Your task to perform on an android device: Open calendar and show me the fourth week of next month Image 0: 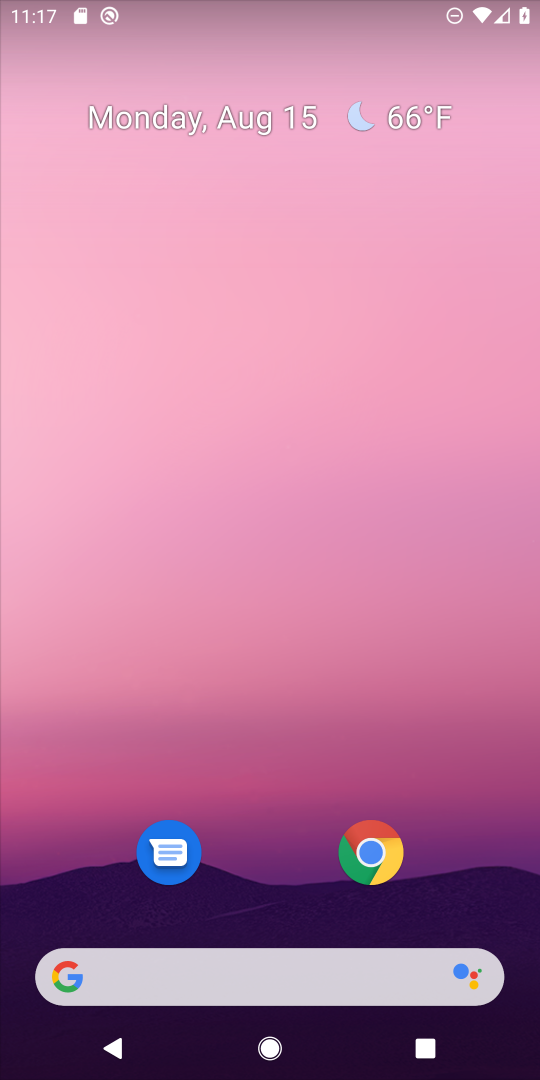
Step 0: drag from (270, 943) to (354, 131)
Your task to perform on an android device: Open calendar and show me the fourth week of next month Image 1: 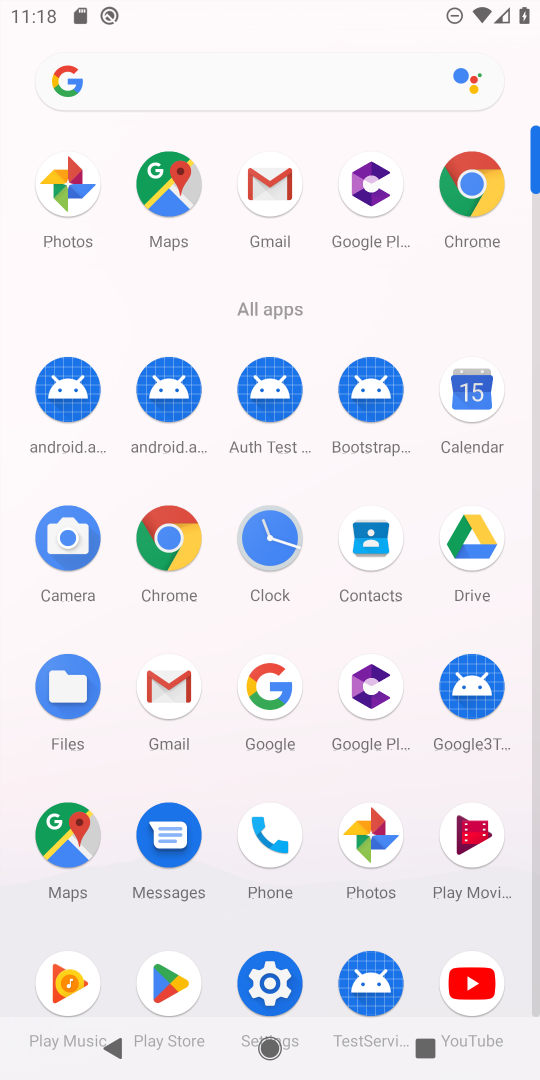
Step 1: click (454, 400)
Your task to perform on an android device: Open calendar and show me the fourth week of next month Image 2: 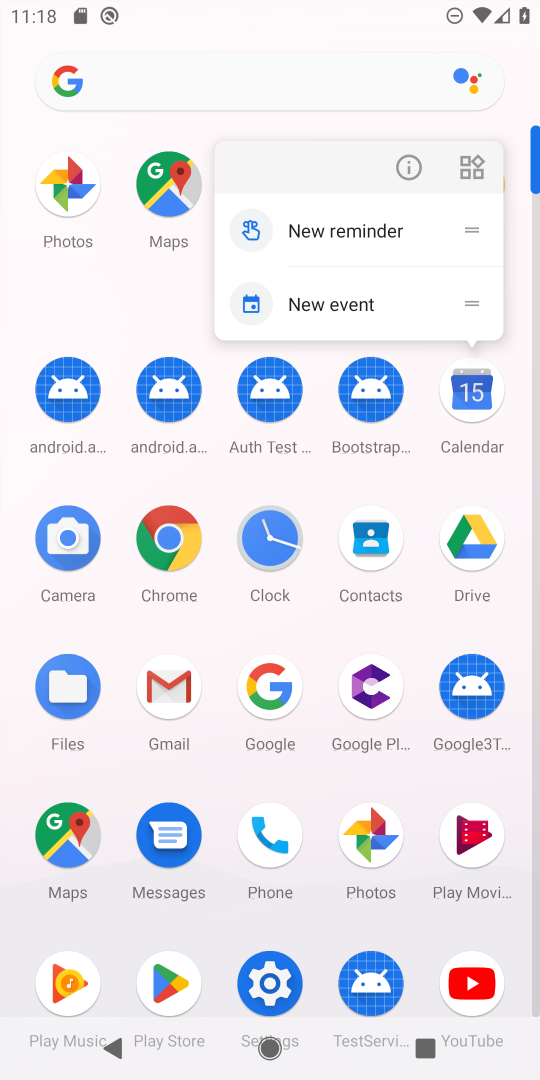
Step 2: click (458, 394)
Your task to perform on an android device: Open calendar and show me the fourth week of next month Image 3: 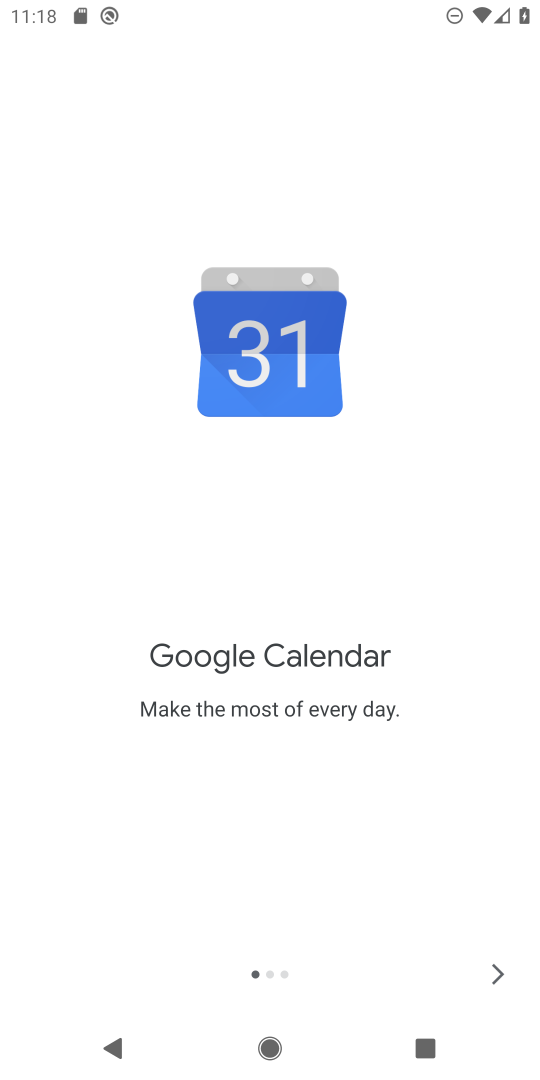
Step 3: click (500, 966)
Your task to perform on an android device: Open calendar and show me the fourth week of next month Image 4: 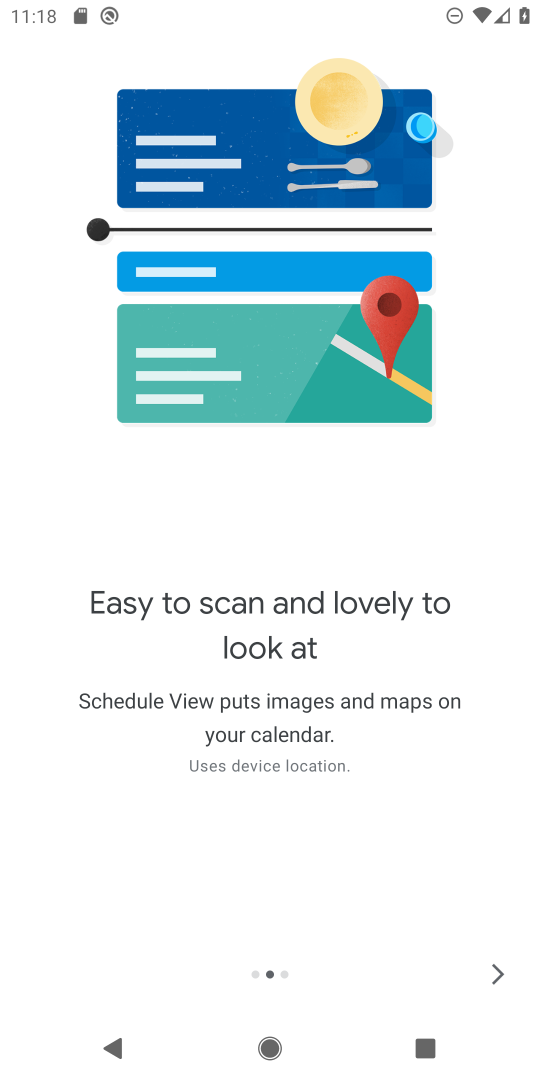
Step 4: click (500, 977)
Your task to perform on an android device: Open calendar and show me the fourth week of next month Image 5: 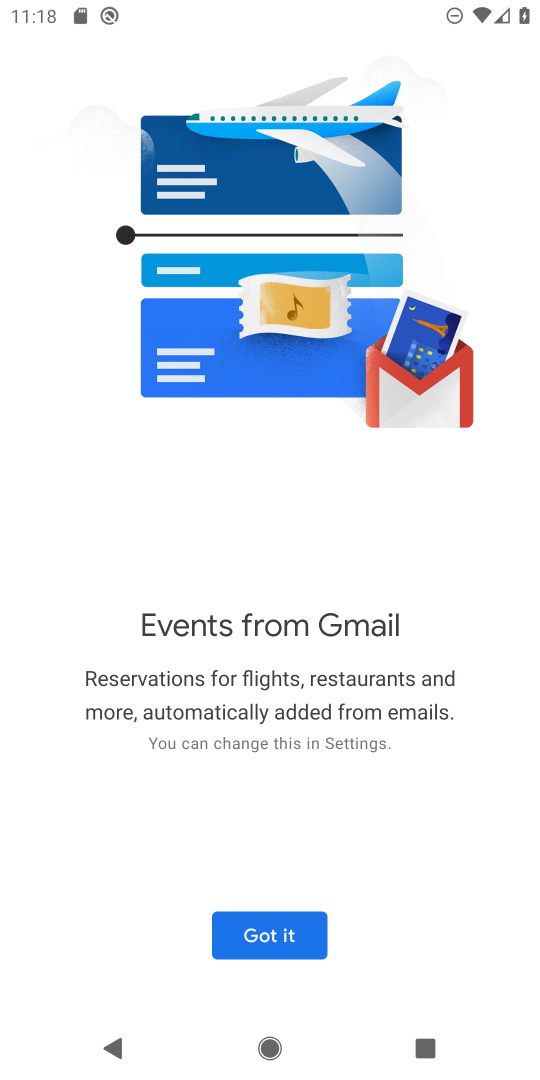
Step 5: click (277, 931)
Your task to perform on an android device: Open calendar and show me the fourth week of next month Image 6: 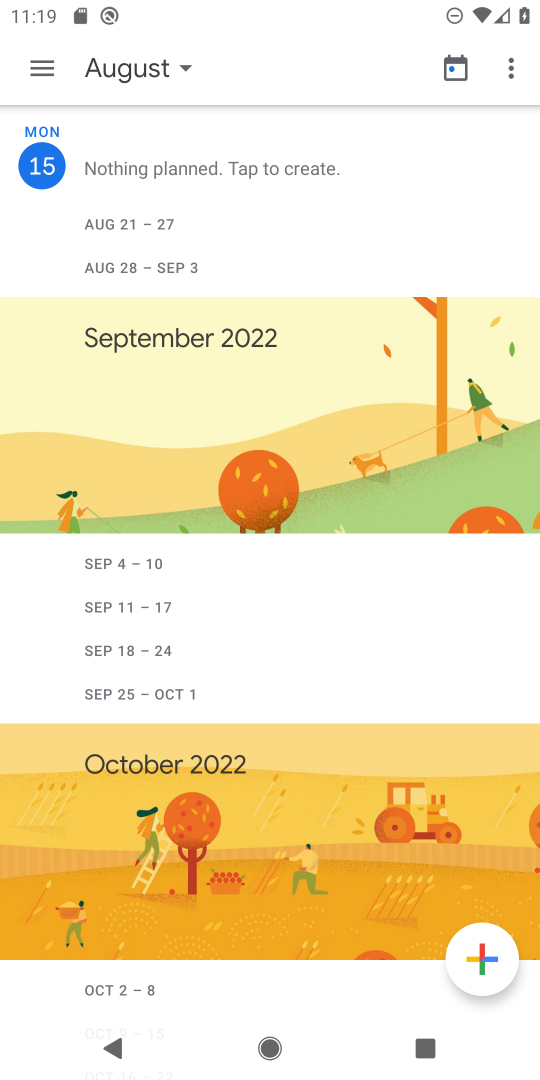
Step 6: click (103, 78)
Your task to perform on an android device: Open calendar and show me the fourth week of next month Image 7: 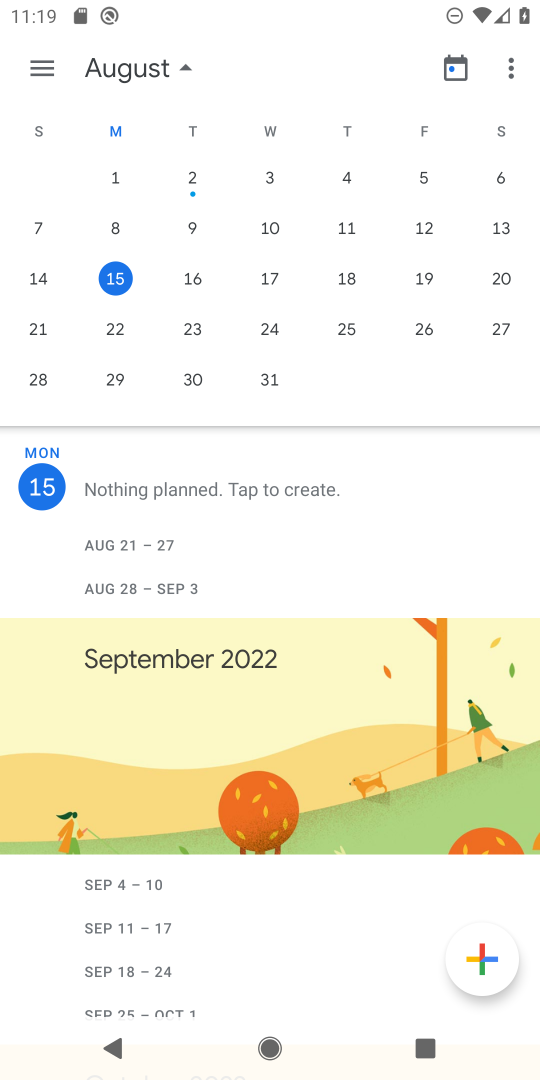
Step 7: drag from (503, 274) to (9, 297)
Your task to perform on an android device: Open calendar and show me the fourth week of next month Image 8: 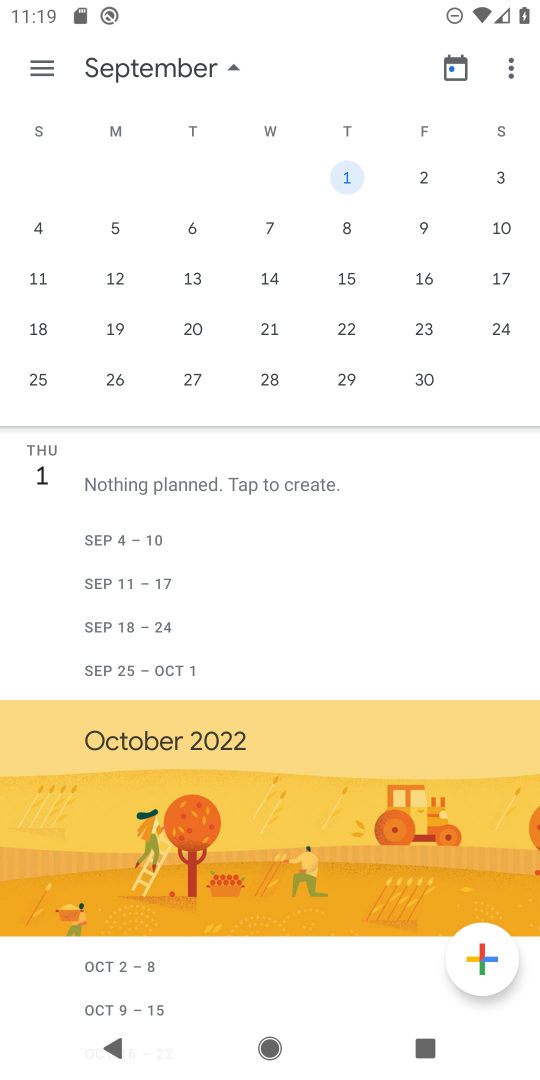
Step 8: click (113, 324)
Your task to perform on an android device: Open calendar and show me the fourth week of next month Image 9: 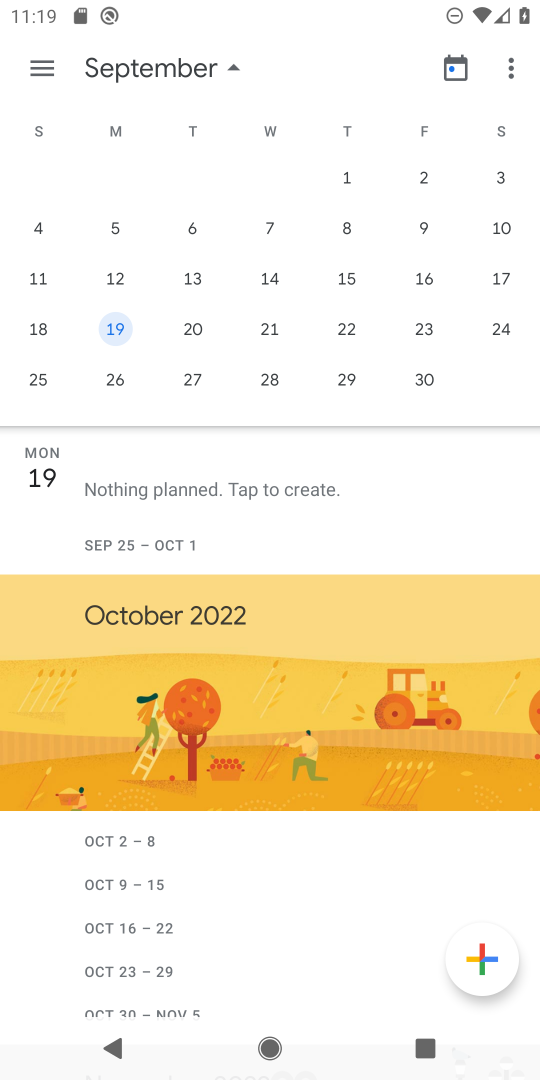
Step 9: task complete